Your task to perform on an android device: Find coffee shops on Maps Image 0: 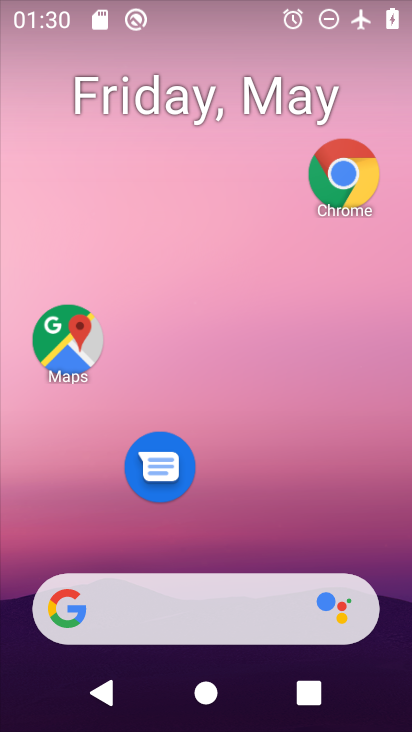
Step 0: click (50, 347)
Your task to perform on an android device: Find coffee shops on Maps Image 1: 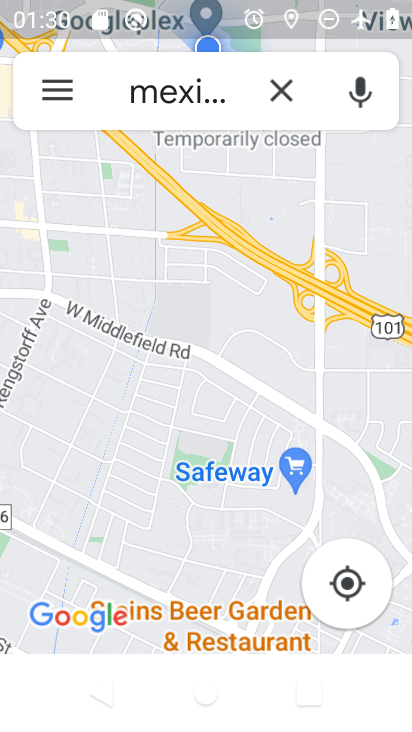
Step 1: click (293, 78)
Your task to perform on an android device: Find coffee shops on Maps Image 2: 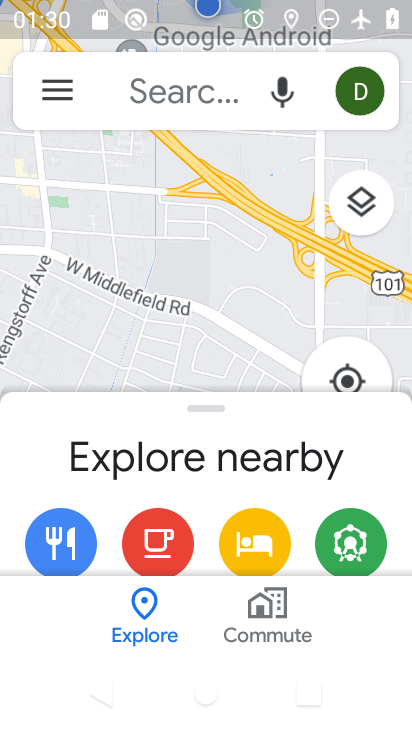
Step 2: click (180, 83)
Your task to perform on an android device: Find coffee shops on Maps Image 3: 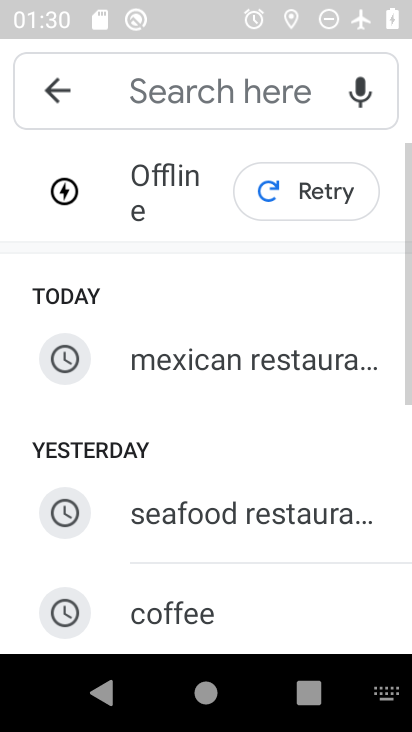
Step 3: click (216, 612)
Your task to perform on an android device: Find coffee shops on Maps Image 4: 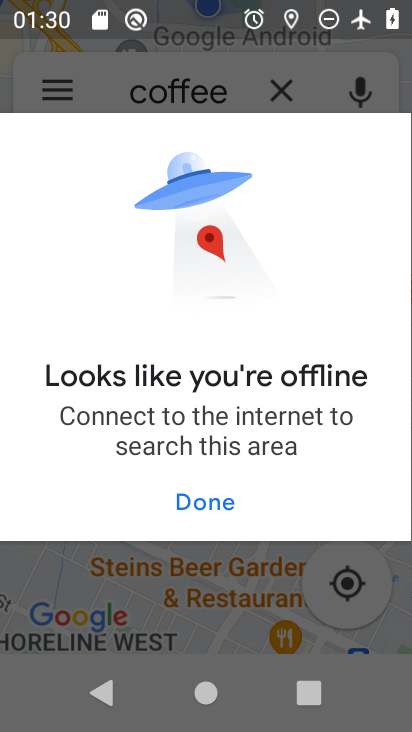
Step 4: click (200, 497)
Your task to perform on an android device: Find coffee shops on Maps Image 5: 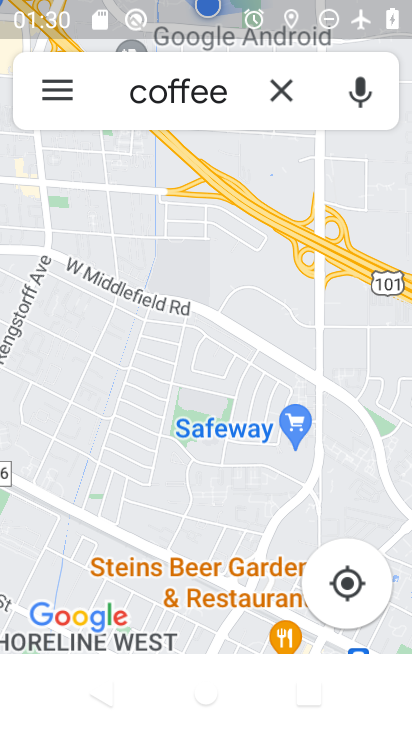
Step 5: task complete